Your task to perform on an android device: Open battery settings Image 0: 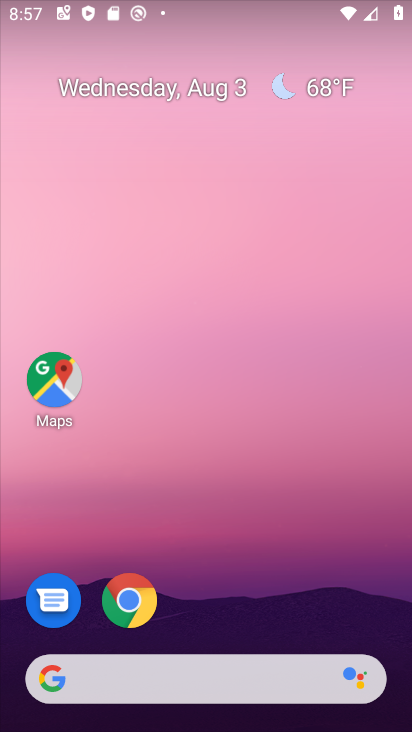
Step 0: drag from (200, 626) to (231, 97)
Your task to perform on an android device: Open battery settings Image 1: 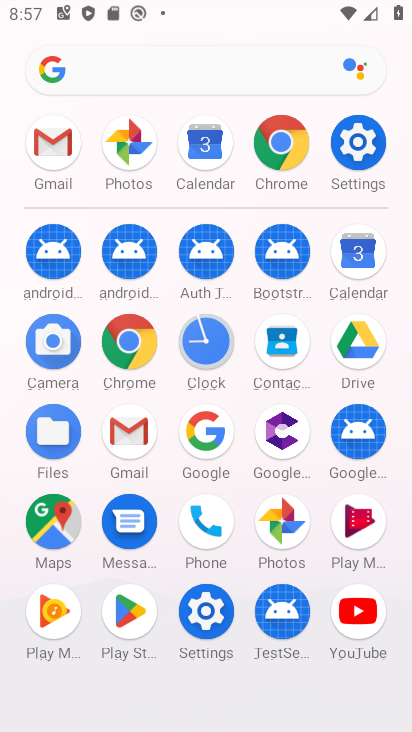
Step 1: click (191, 651)
Your task to perform on an android device: Open battery settings Image 2: 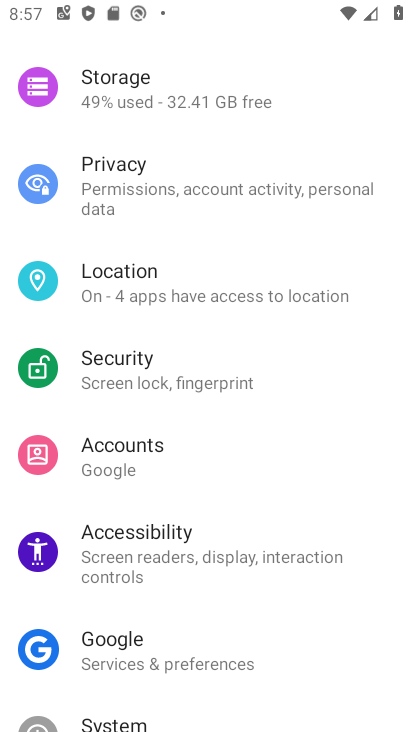
Step 2: drag from (213, 157) to (221, 546)
Your task to perform on an android device: Open battery settings Image 3: 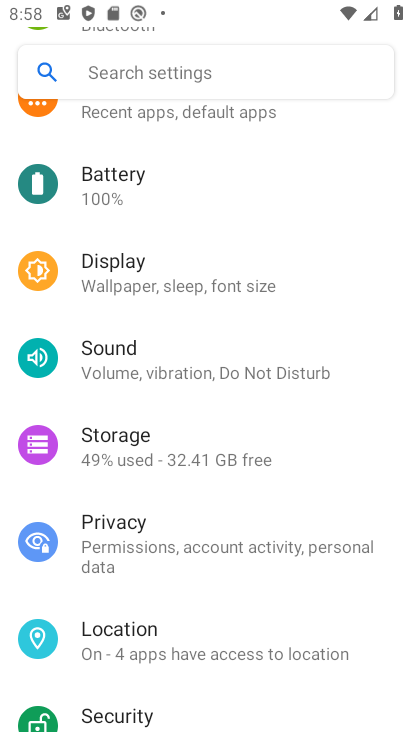
Step 3: click (142, 179)
Your task to perform on an android device: Open battery settings Image 4: 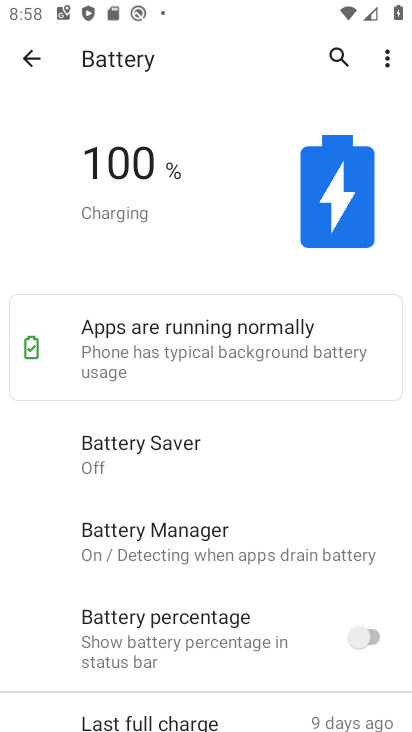
Step 4: task complete